Your task to perform on an android device: Search for the best selling phone on AliExpress Image 0: 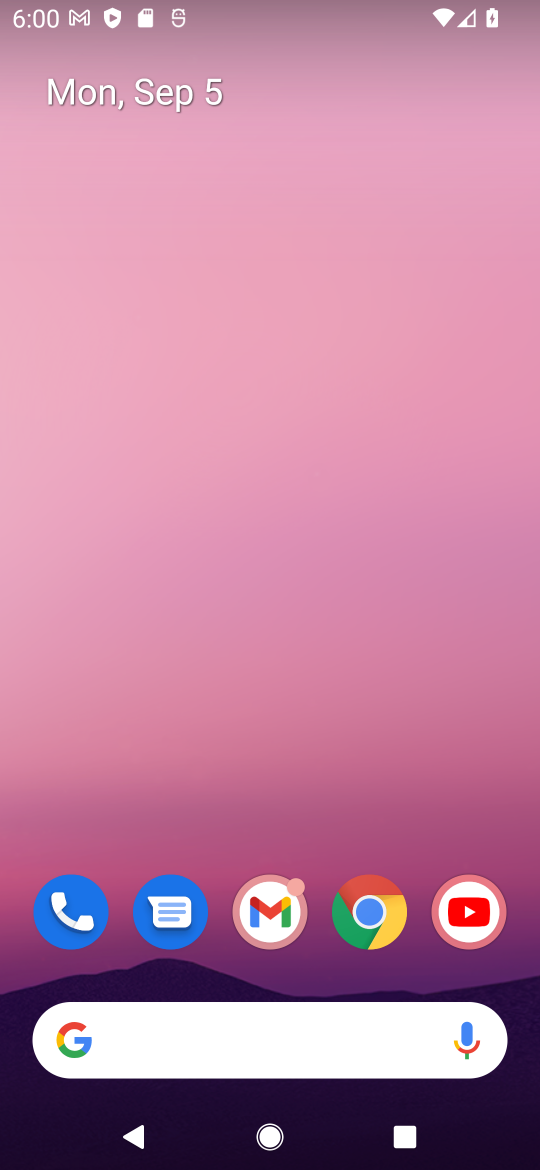
Step 0: click (362, 918)
Your task to perform on an android device: Search for the best selling phone on AliExpress Image 1: 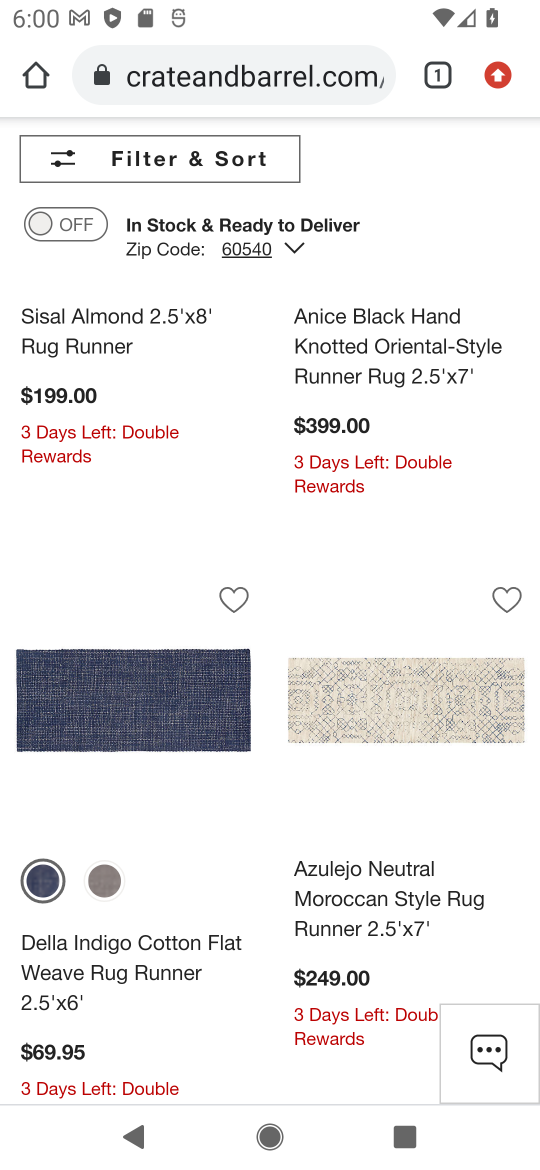
Step 1: click (299, 78)
Your task to perform on an android device: Search for the best selling phone on AliExpress Image 2: 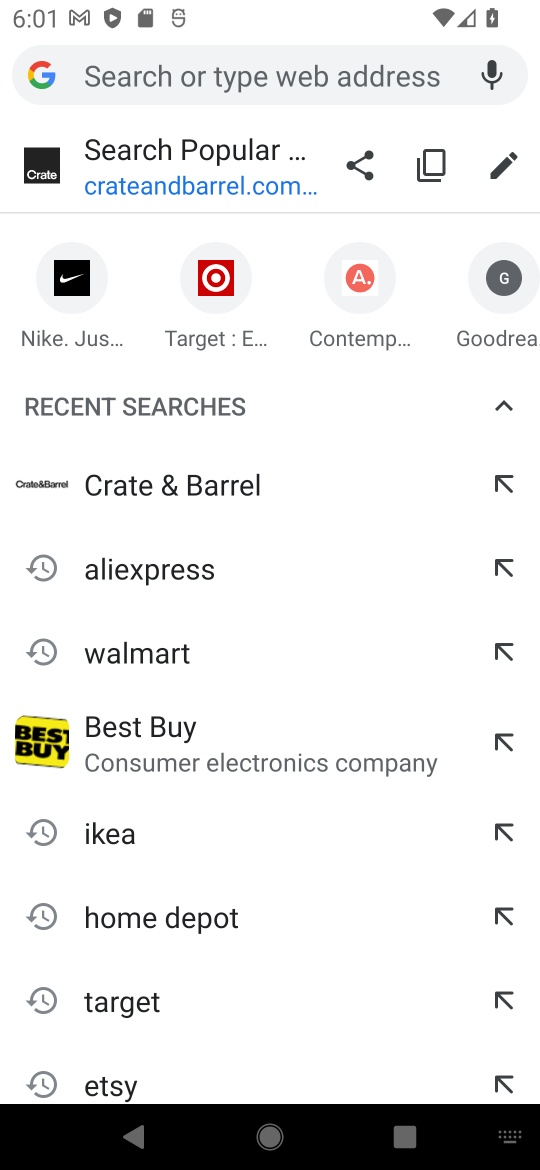
Step 2: type "aliexpress"
Your task to perform on an android device: Search for the best selling phone on AliExpress Image 3: 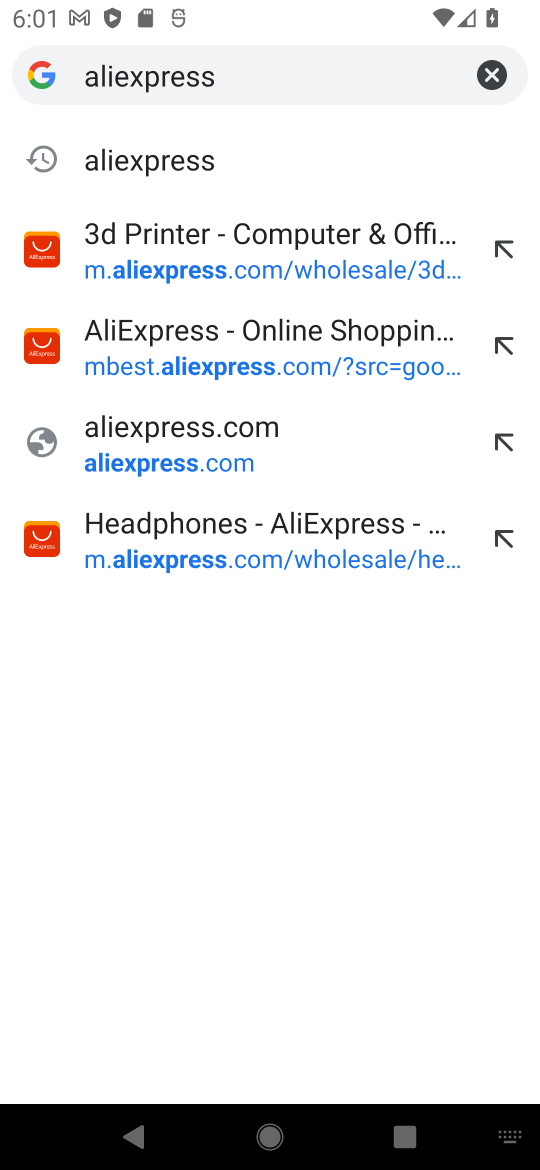
Step 3: press enter
Your task to perform on an android device: Search for the best selling phone on AliExpress Image 4: 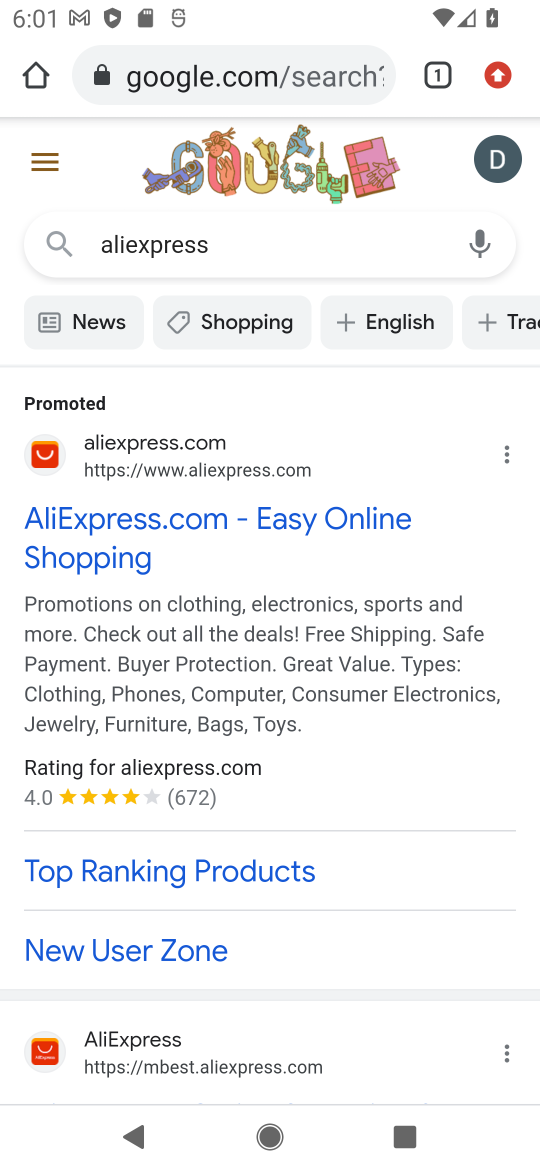
Step 4: click (228, 514)
Your task to perform on an android device: Search for the best selling phone on AliExpress Image 5: 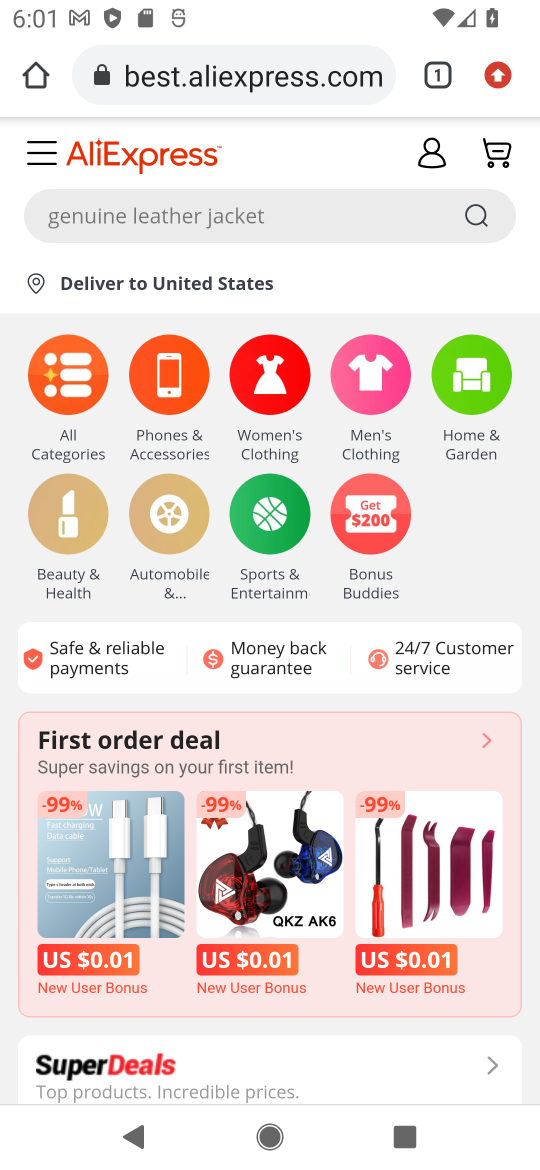
Step 5: click (276, 225)
Your task to perform on an android device: Search for the best selling phone on AliExpress Image 6: 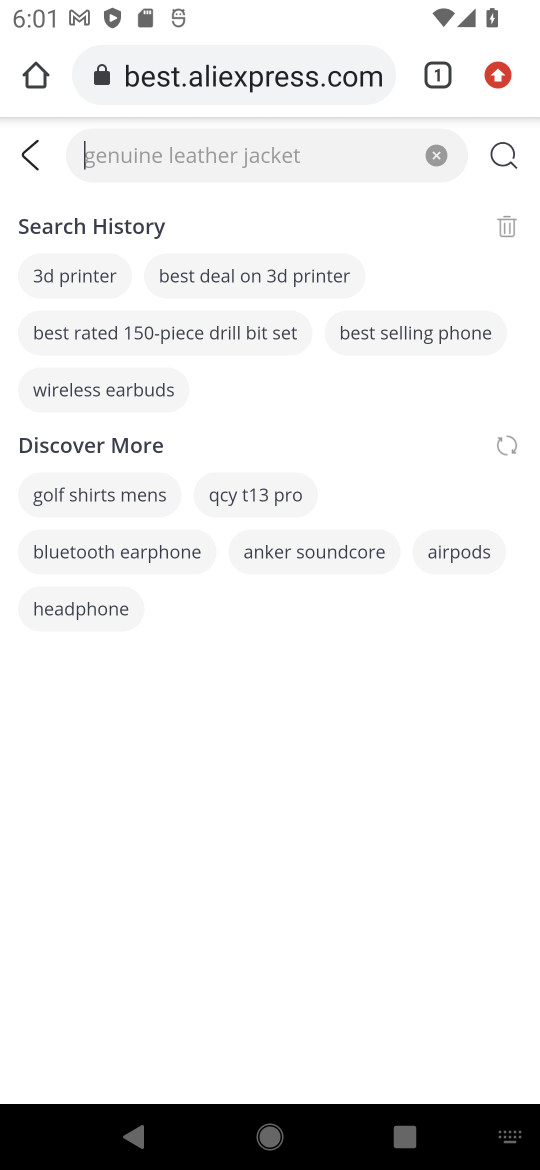
Step 6: type "best selling phone"
Your task to perform on an android device: Search for the best selling phone on AliExpress Image 7: 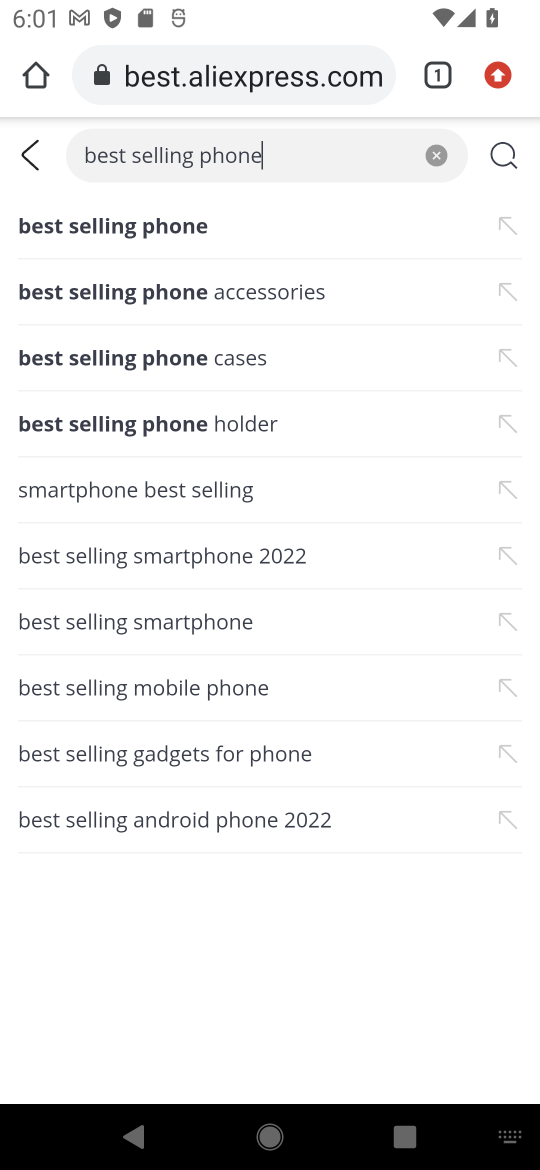
Step 7: press enter
Your task to perform on an android device: Search for the best selling phone on AliExpress Image 8: 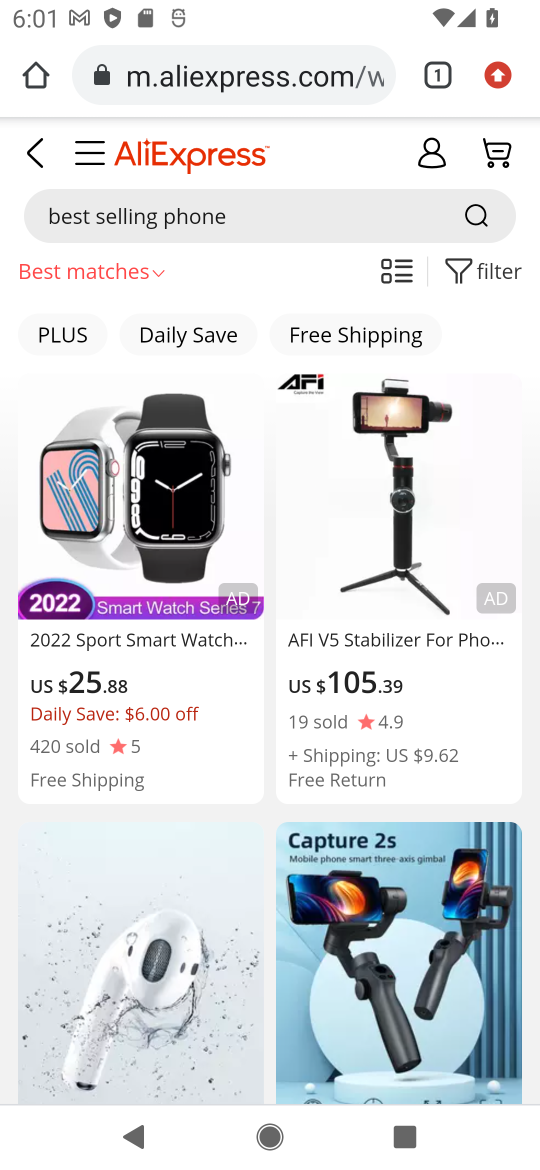
Step 8: click (483, 268)
Your task to perform on an android device: Search for the best selling phone on AliExpress Image 9: 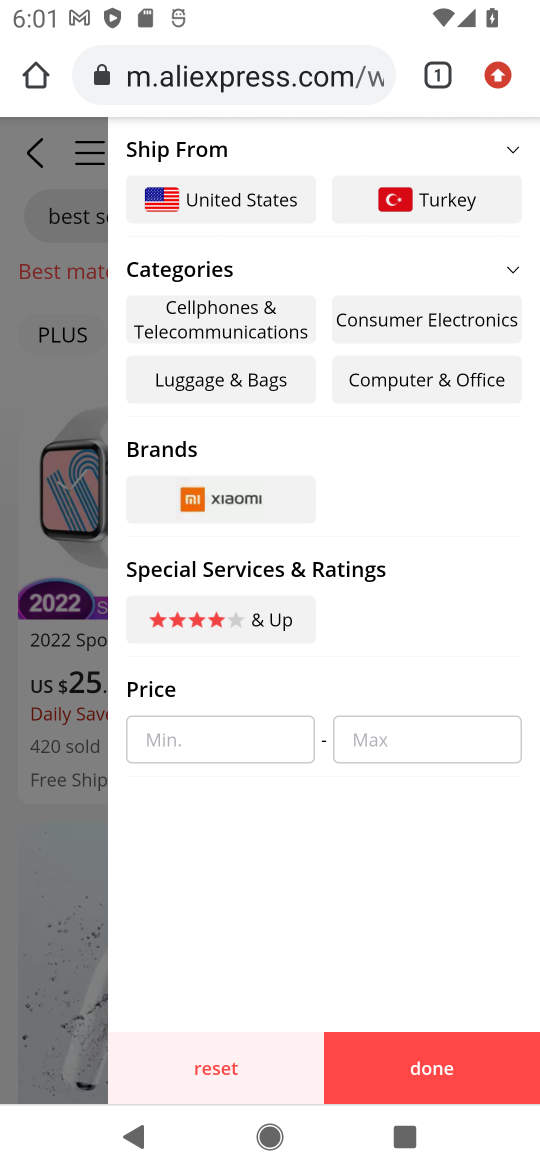
Step 9: click (22, 512)
Your task to perform on an android device: Search for the best selling phone on AliExpress Image 10: 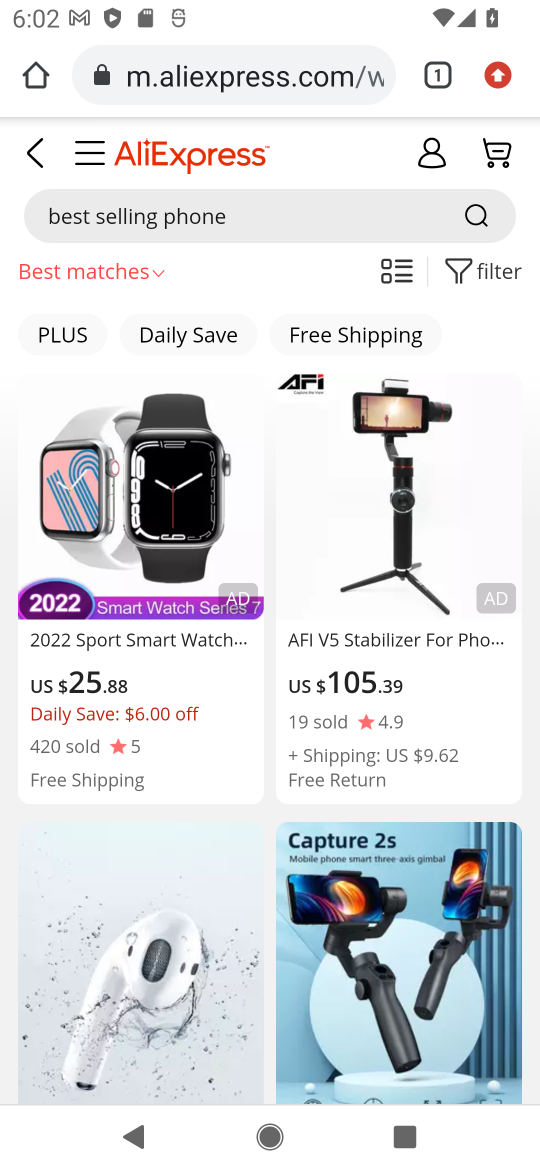
Step 10: task complete